Your task to perform on an android device: Open the phone app and click the voicemail tab. Image 0: 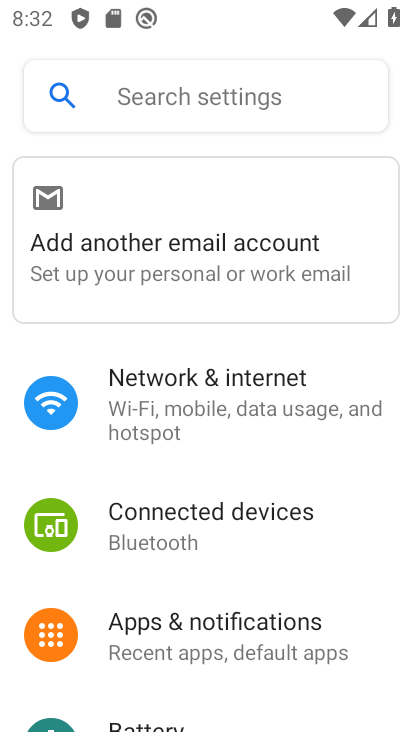
Step 0: press home button
Your task to perform on an android device: Open the phone app and click the voicemail tab. Image 1: 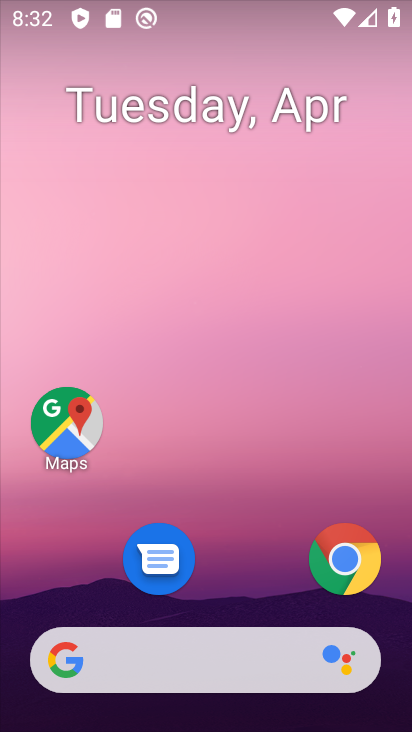
Step 1: drag from (249, 698) to (285, 99)
Your task to perform on an android device: Open the phone app and click the voicemail tab. Image 2: 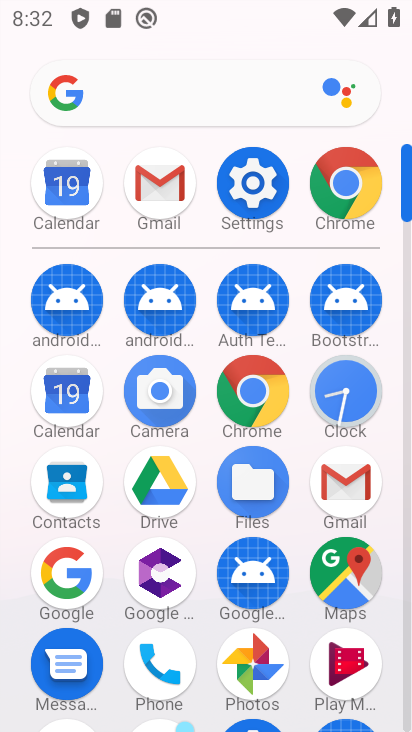
Step 2: drag from (209, 543) to (219, 456)
Your task to perform on an android device: Open the phone app and click the voicemail tab. Image 3: 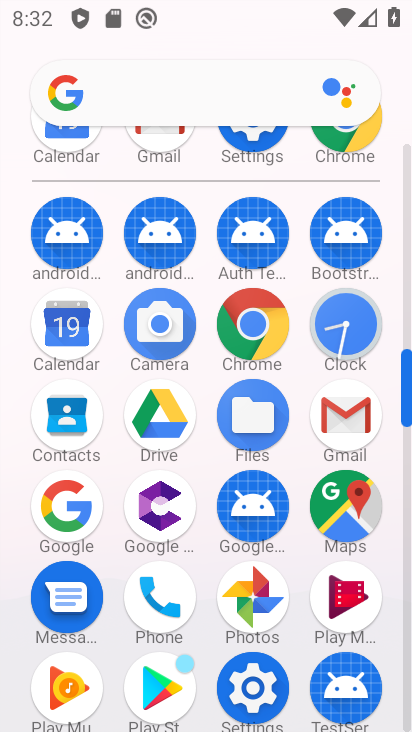
Step 3: click (161, 600)
Your task to perform on an android device: Open the phone app and click the voicemail tab. Image 4: 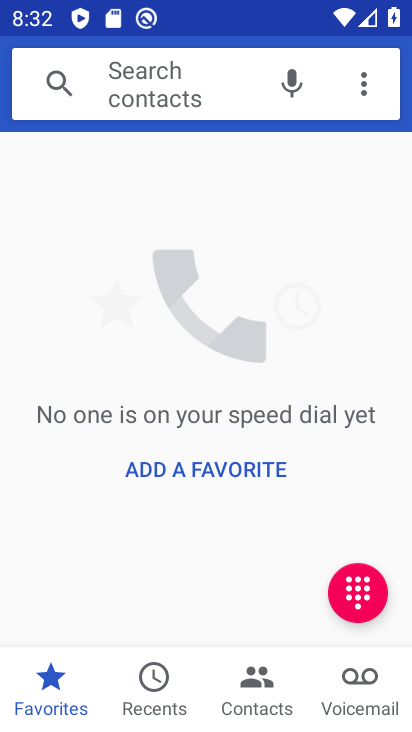
Step 4: click (374, 693)
Your task to perform on an android device: Open the phone app and click the voicemail tab. Image 5: 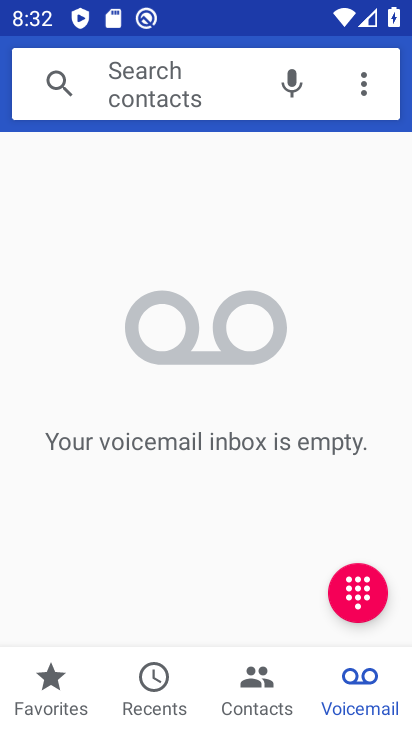
Step 5: task complete